Your task to perform on an android device: delete location history Image 0: 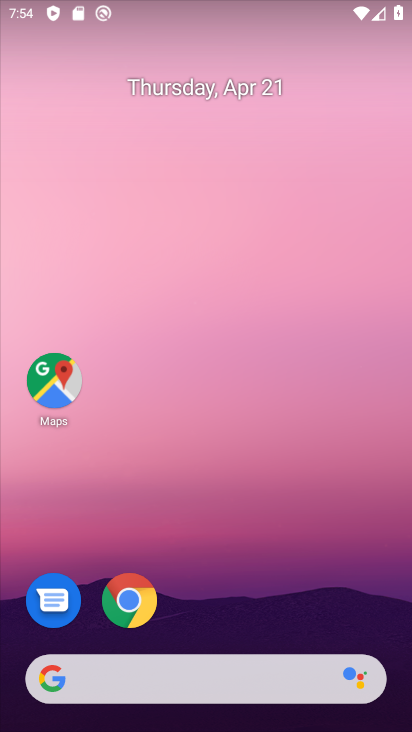
Step 0: drag from (235, 613) to (226, 157)
Your task to perform on an android device: delete location history Image 1: 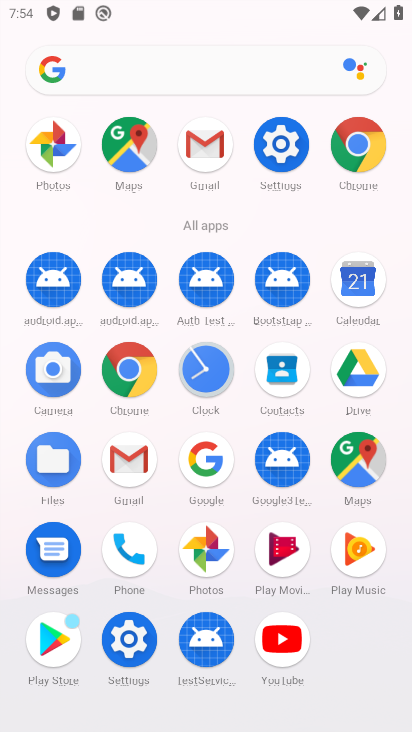
Step 1: click (272, 160)
Your task to perform on an android device: delete location history Image 2: 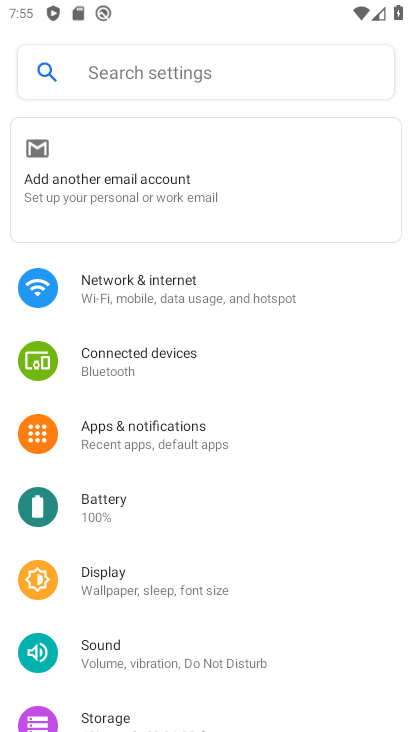
Step 2: drag from (229, 626) to (261, 306)
Your task to perform on an android device: delete location history Image 3: 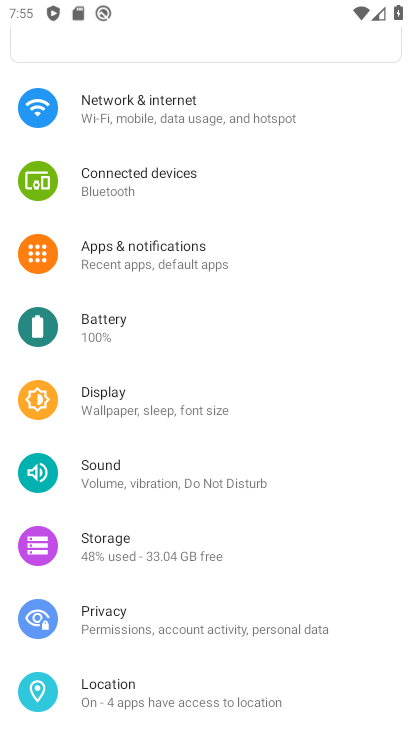
Step 3: click (167, 701)
Your task to perform on an android device: delete location history Image 4: 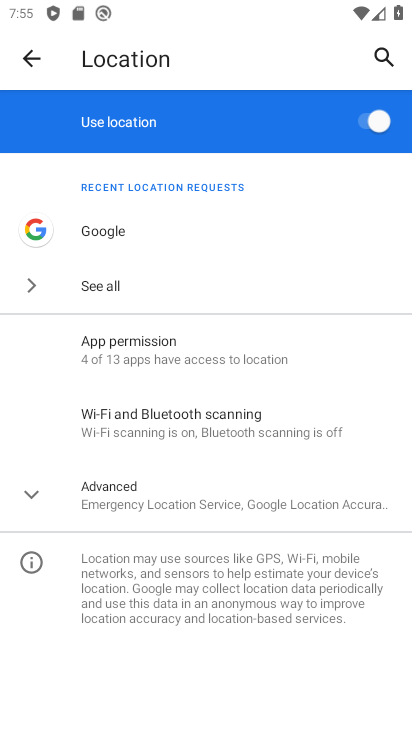
Step 4: click (120, 489)
Your task to perform on an android device: delete location history Image 5: 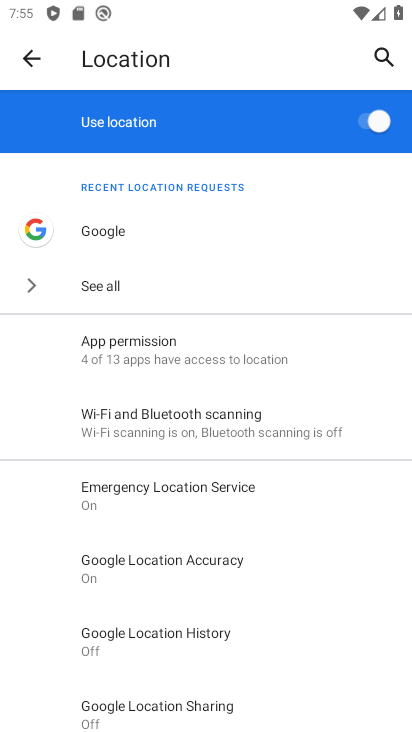
Step 5: click (145, 637)
Your task to perform on an android device: delete location history Image 6: 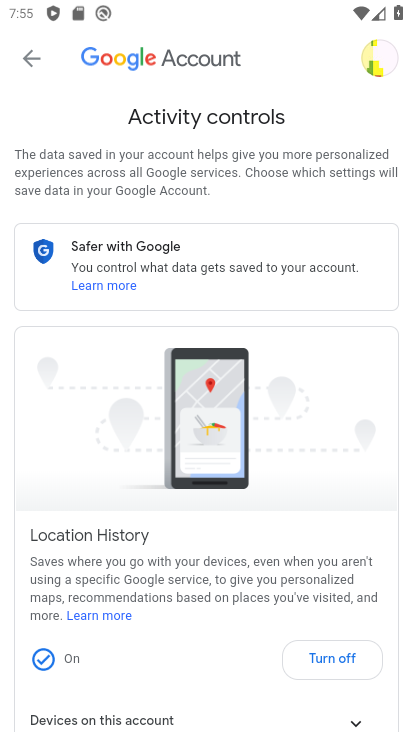
Step 6: drag from (227, 632) to (228, 488)
Your task to perform on an android device: delete location history Image 7: 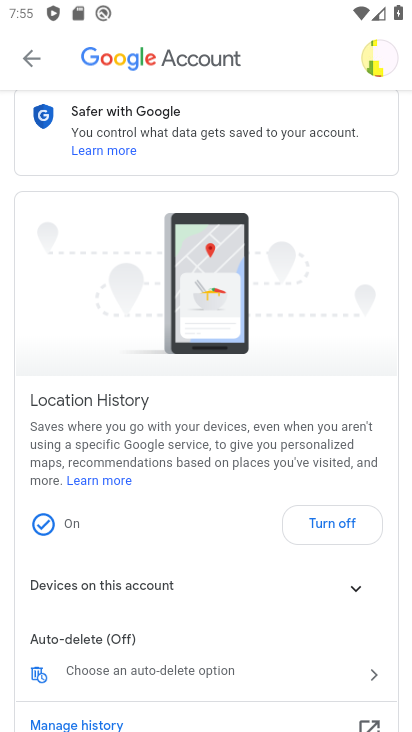
Step 7: drag from (200, 676) to (248, 426)
Your task to perform on an android device: delete location history Image 8: 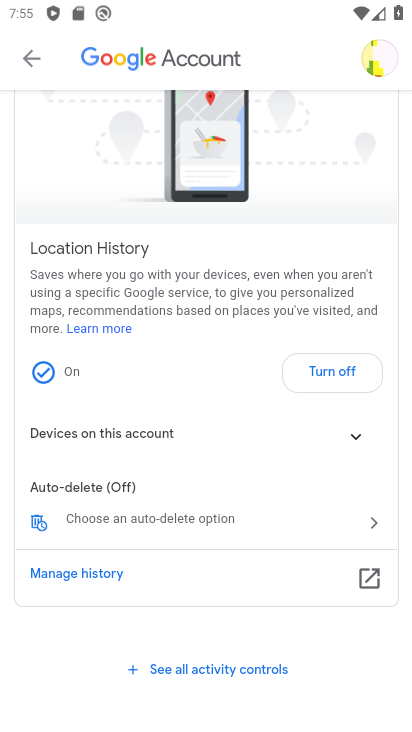
Step 8: click (102, 582)
Your task to perform on an android device: delete location history Image 9: 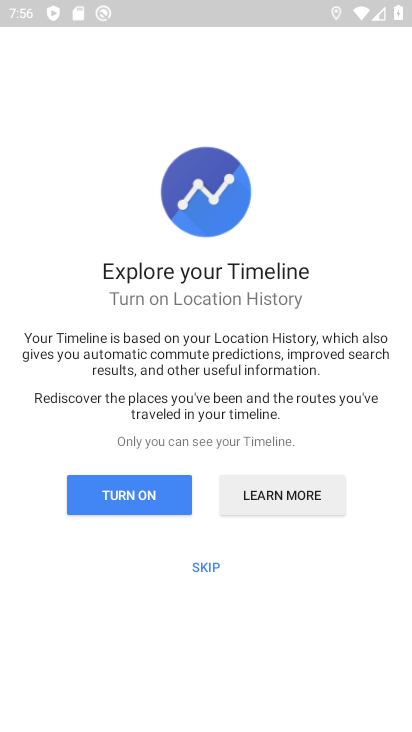
Step 9: click (208, 574)
Your task to perform on an android device: delete location history Image 10: 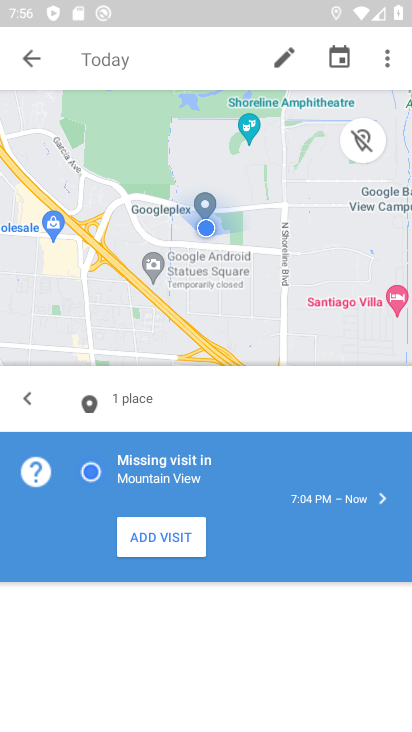
Step 10: click (389, 53)
Your task to perform on an android device: delete location history Image 11: 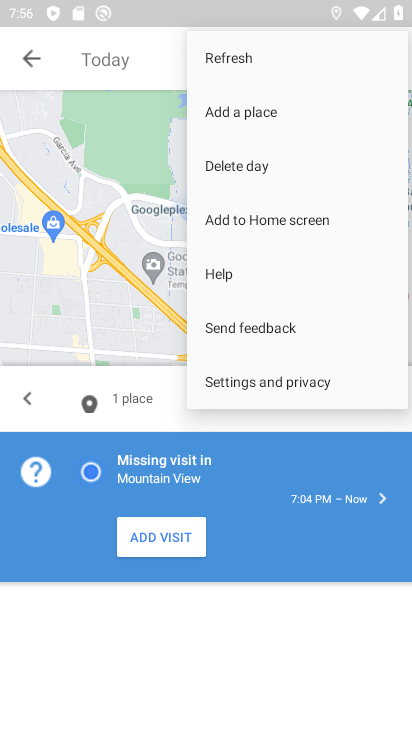
Step 11: click (253, 380)
Your task to perform on an android device: delete location history Image 12: 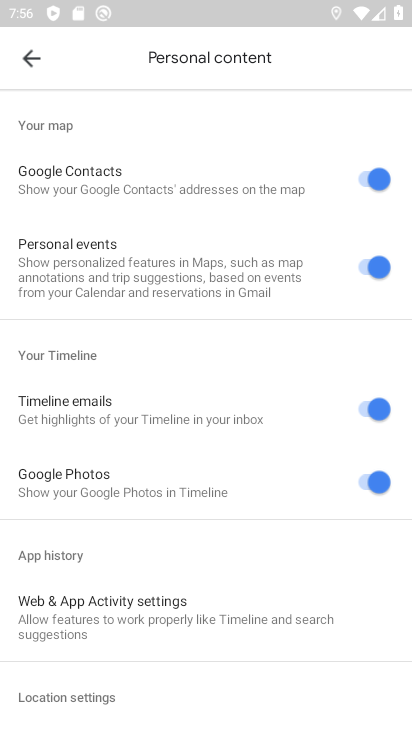
Step 12: drag from (186, 616) to (244, 325)
Your task to perform on an android device: delete location history Image 13: 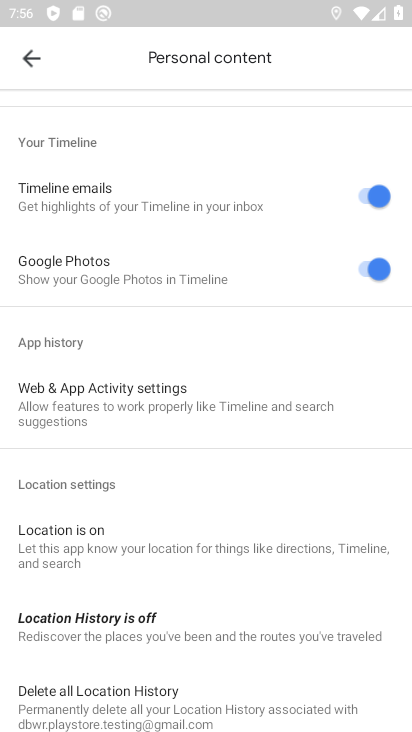
Step 13: click (116, 717)
Your task to perform on an android device: delete location history Image 14: 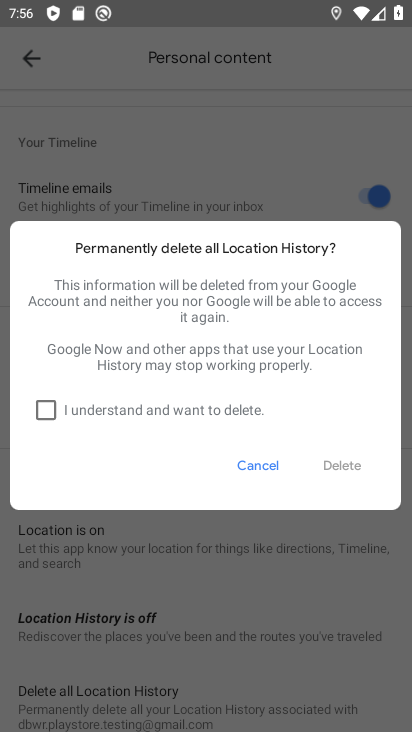
Step 14: click (44, 418)
Your task to perform on an android device: delete location history Image 15: 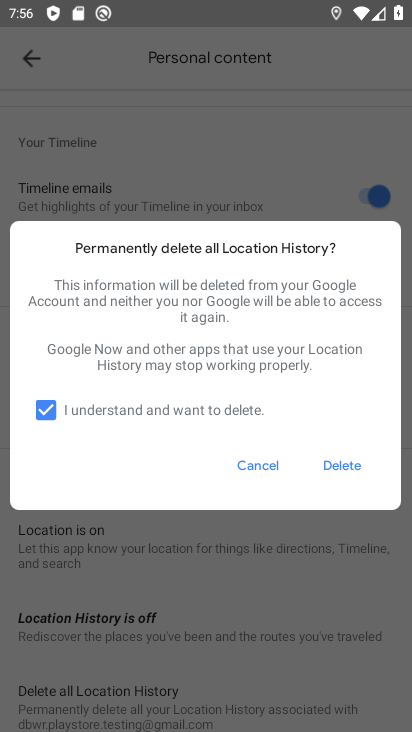
Step 15: click (349, 463)
Your task to perform on an android device: delete location history Image 16: 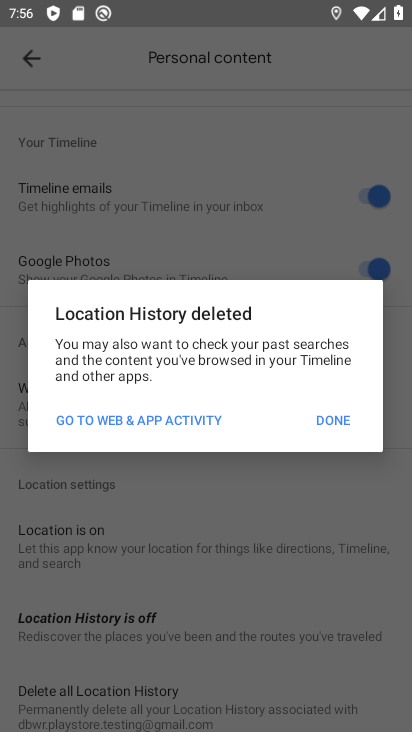
Step 16: click (334, 423)
Your task to perform on an android device: delete location history Image 17: 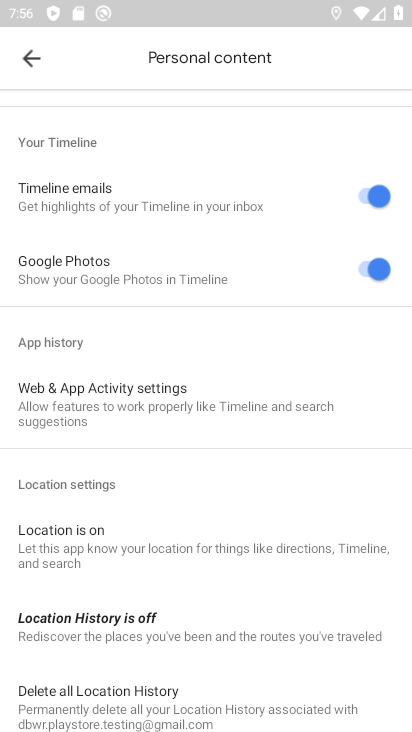
Step 17: task complete